Your task to perform on an android device: Show me the alarms in the clock app Image 0: 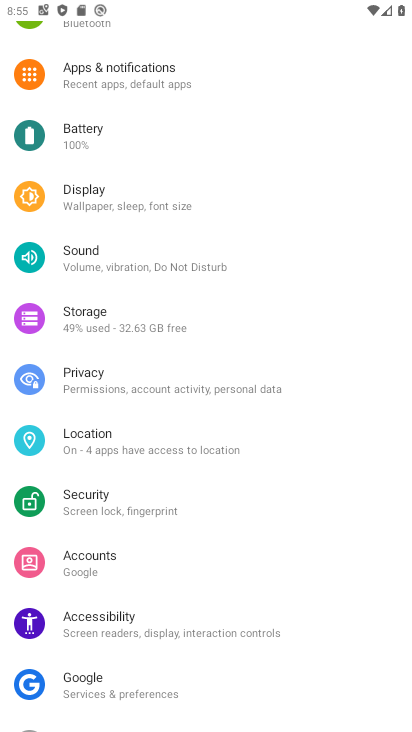
Step 0: press home button
Your task to perform on an android device: Show me the alarms in the clock app Image 1: 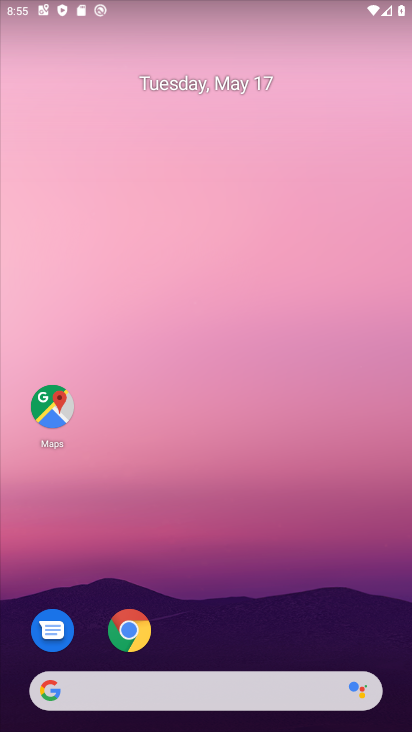
Step 1: drag from (204, 524) to (199, 107)
Your task to perform on an android device: Show me the alarms in the clock app Image 2: 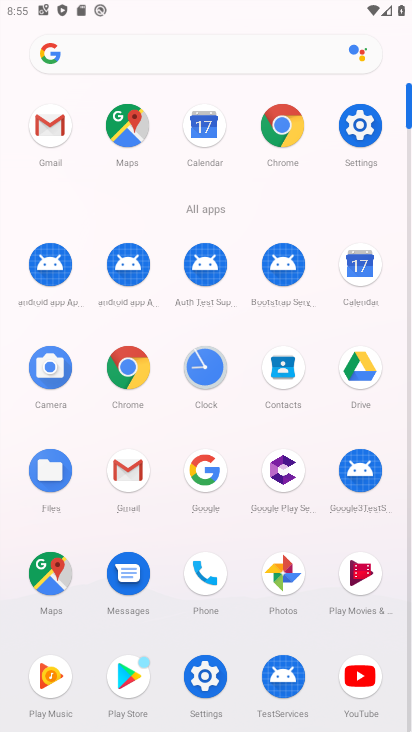
Step 2: click (190, 385)
Your task to perform on an android device: Show me the alarms in the clock app Image 3: 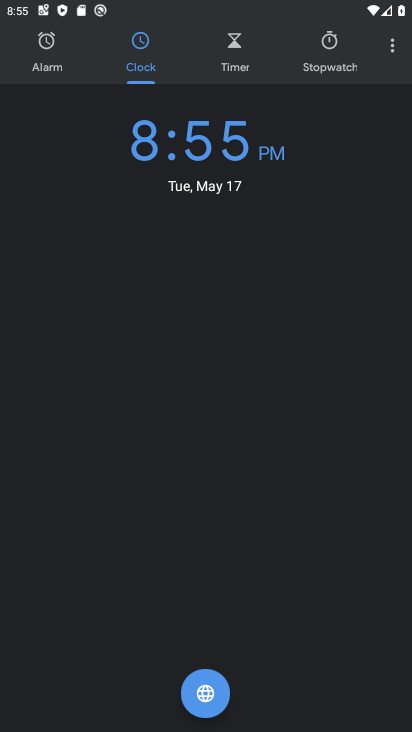
Step 3: click (50, 49)
Your task to perform on an android device: Show me the alarms in the clock app Image 4: 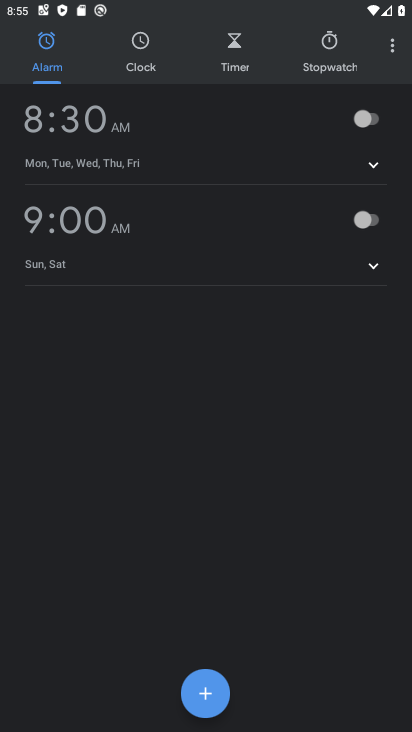
Step 4: task complete